Your task to perform on an android device: check battery use Image 0: 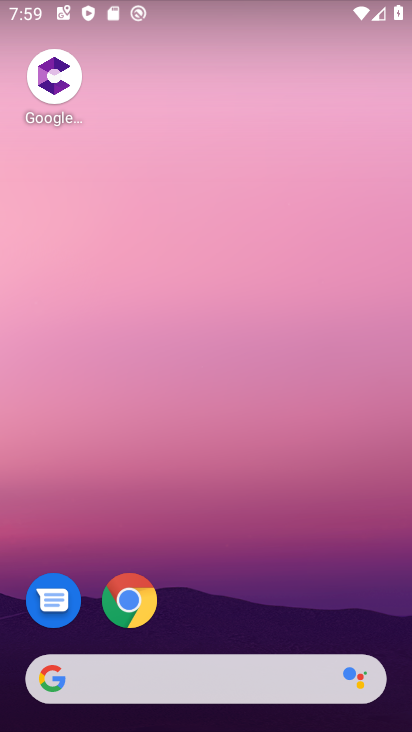
Step 0: drag from (216, 486) to (312, 3)
Your task to perform on an android device: check battery use Image 1: 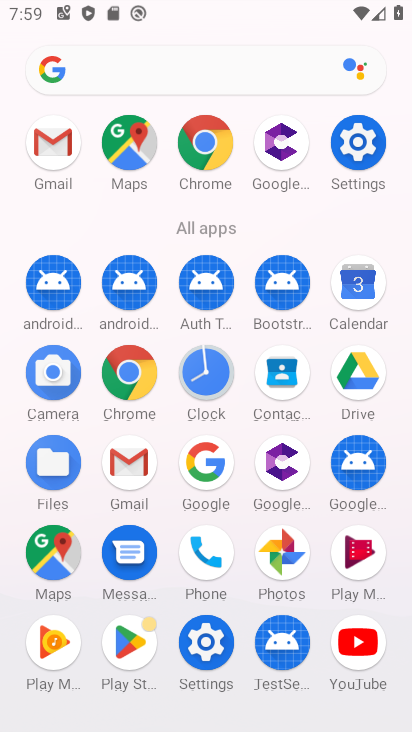
Step 1: click (368, 137)
Your task to perform on an android device: check battery use Image 2: 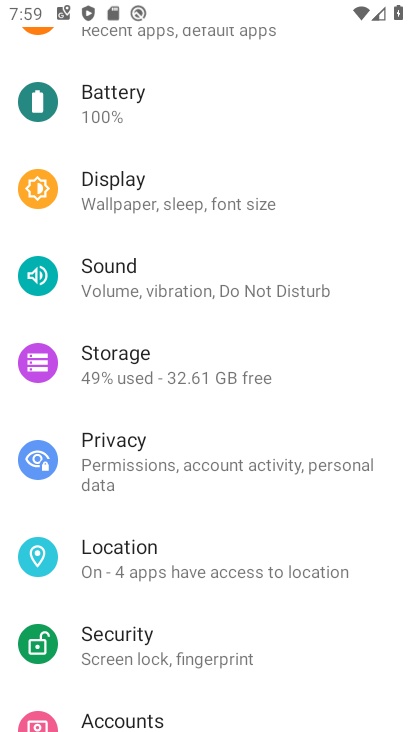
Step 2: click (125, 116)
Your task to perform on an android device: check battery use Image 3: 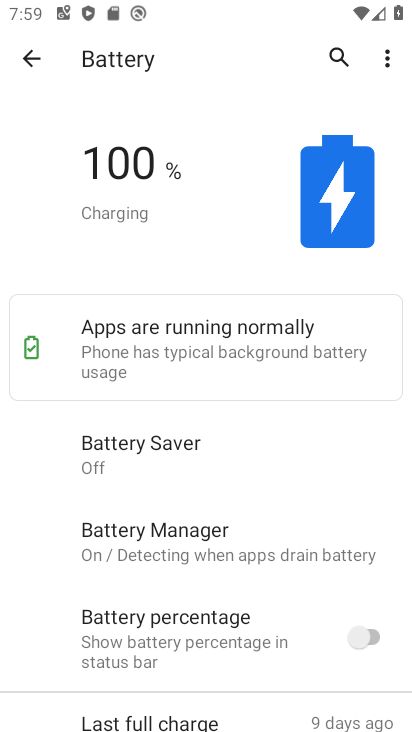
Step 3: click (385, 50)
Your task to perform on an android device: check battery use Image 4: 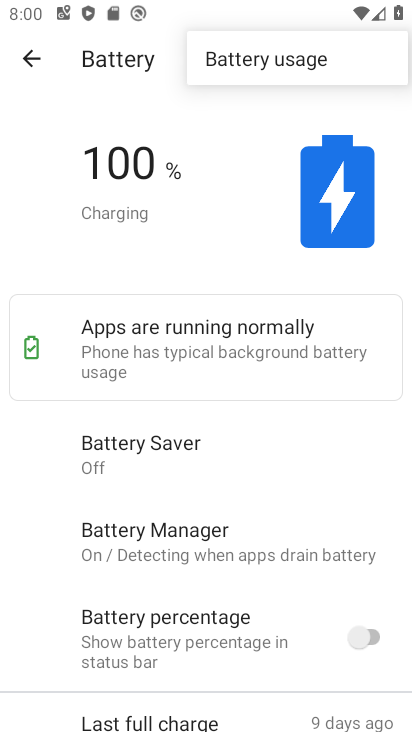
Step 4: click (320, 63)
Your task to perform on an android device: check battery use Image 5: 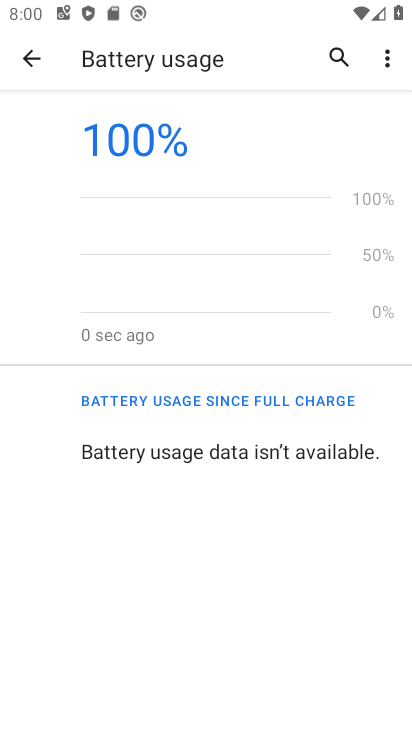
Step 5: task complete